Your task to perform on an android device: Go to network settings Image 0: 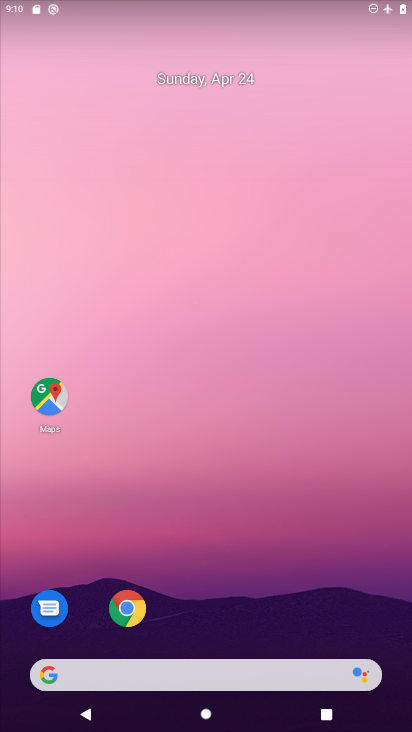
Step 0: drag from (187, 496) to (206, 139)
Your task to perform on an android device: Go to network settings Image 1: 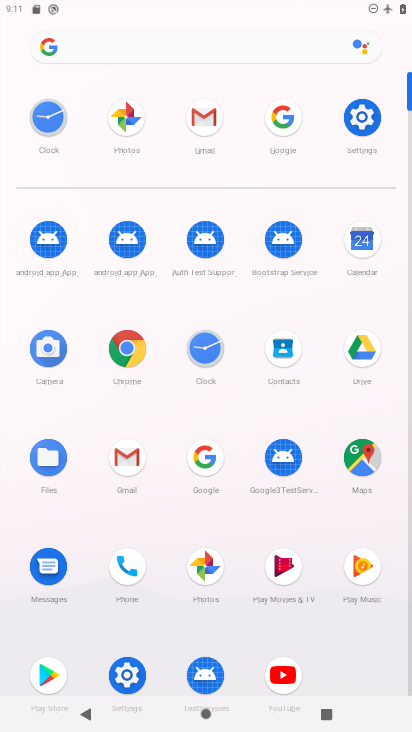
Step 1: click (363, 118)
Your task to perform on an android device: Go to network settings Image 2: 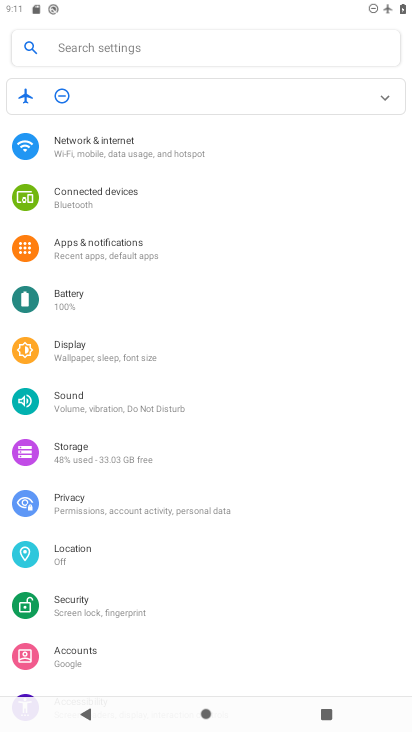
Step 2: click (154, 153)
Your task to perform on an android device: Go to network settings Image 3: 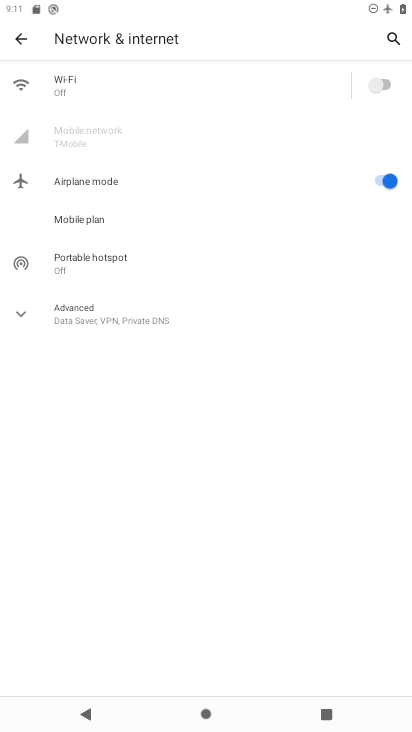
Step 3: task complete